Your task to perform on an android device: open app "Google Play services" (install if not already installed) Image 0: 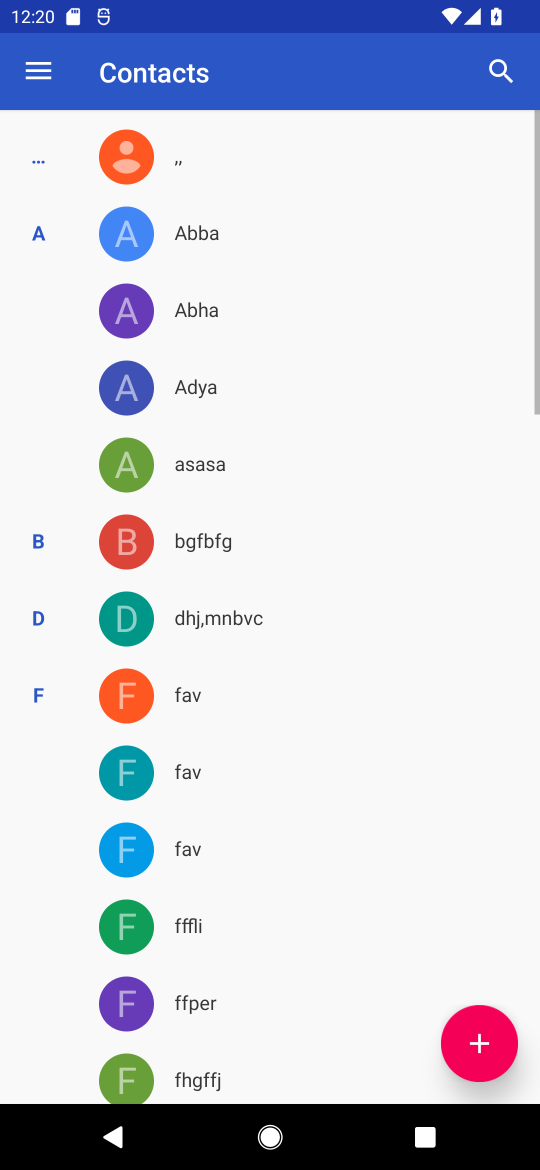
Step 0: press back button
Your task to perform on an android device: open app "Google Play services" (install if not already installed) Image 1: 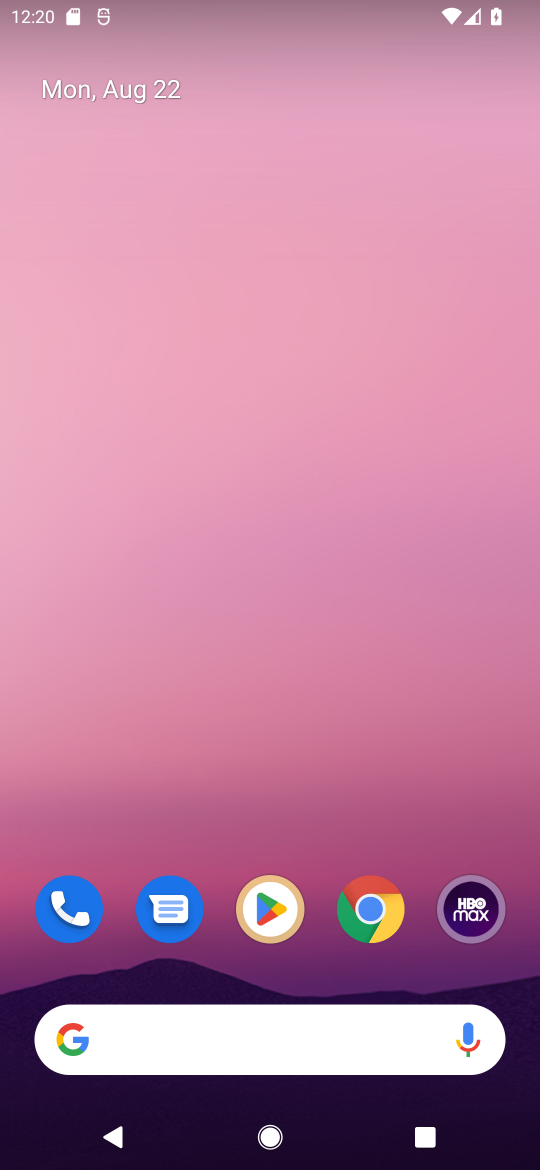
Step 1: click (266, 910)
Your task to perform on an android device: open app "Google Play services" (install if not already installed) Image 2: 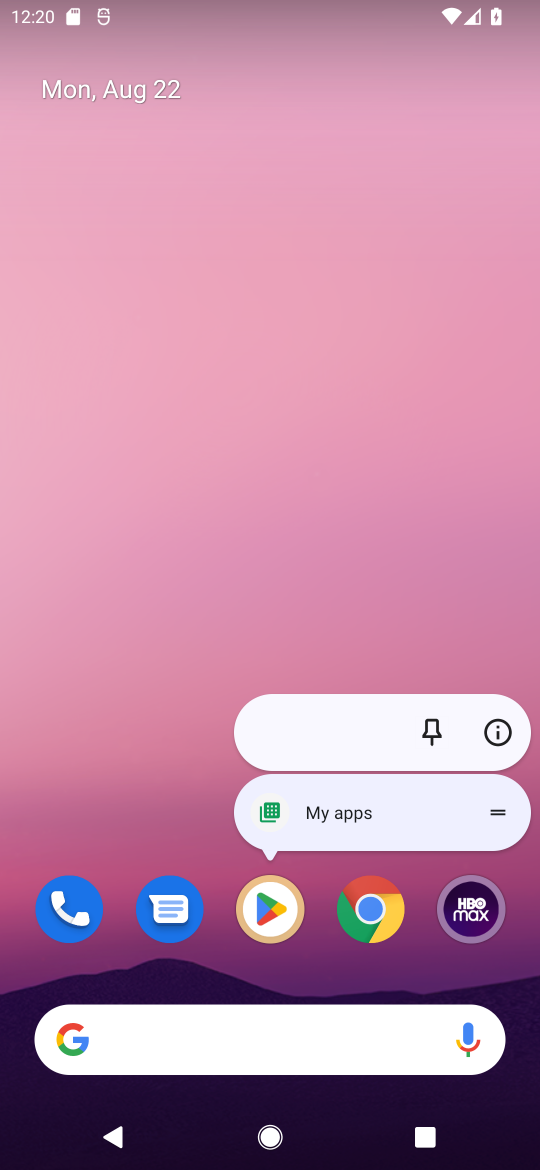
Step 2: click (274, 905)
Your task to perform on an android device: open app "Google Play services" (install if not already installed) Image 3: 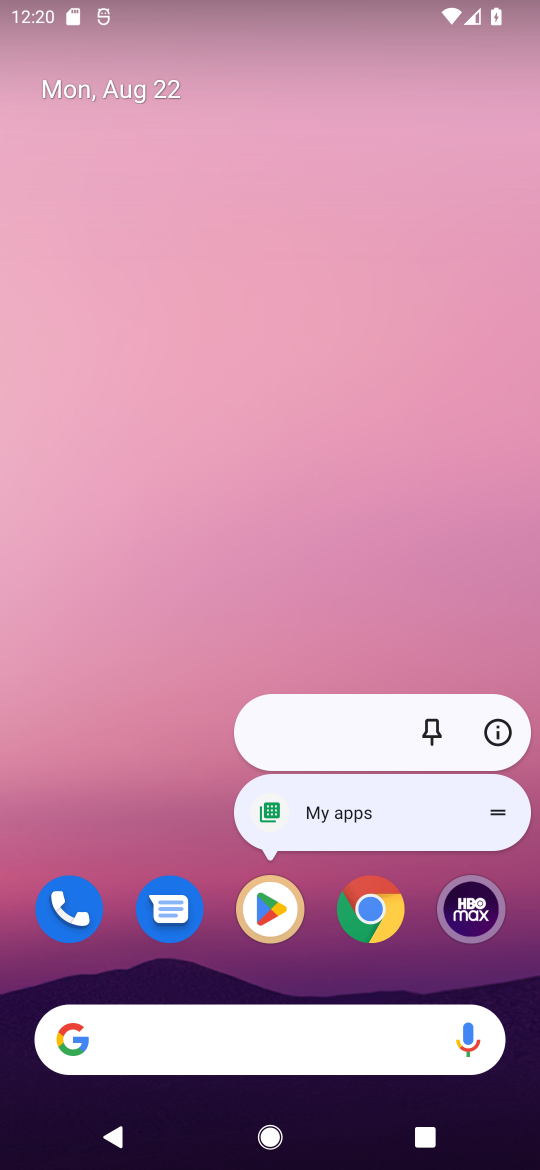
Step 3: click (278, 910)
Your task to perform on an android device: open app "Google Play services" (install if not already installed) Image 4: 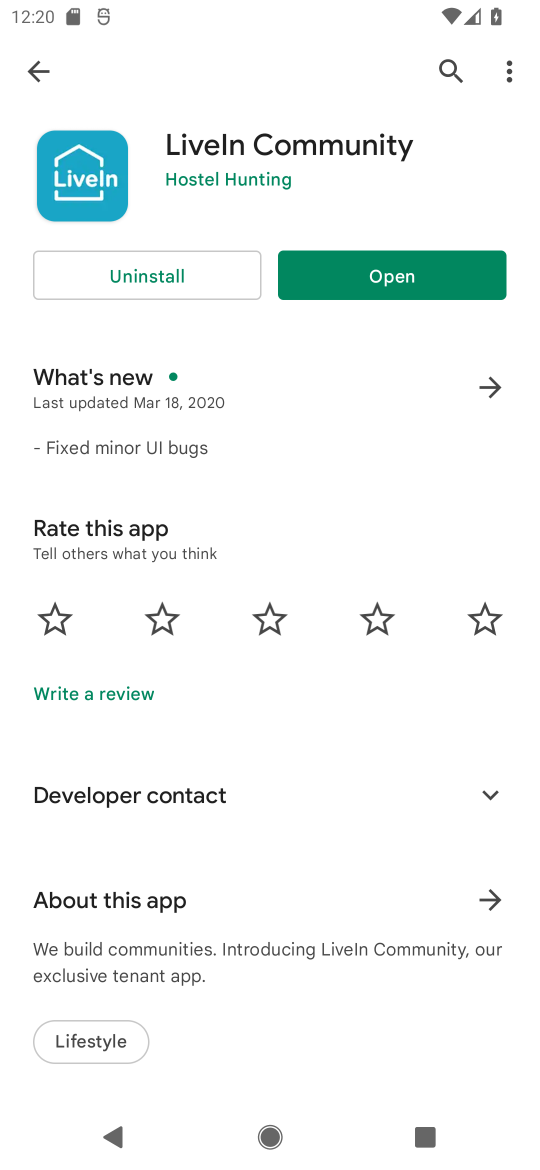
Step 4: click (453, 67)
Your task to perform on an android device: open app "Google Play services" (install if not already installed) Image 5: 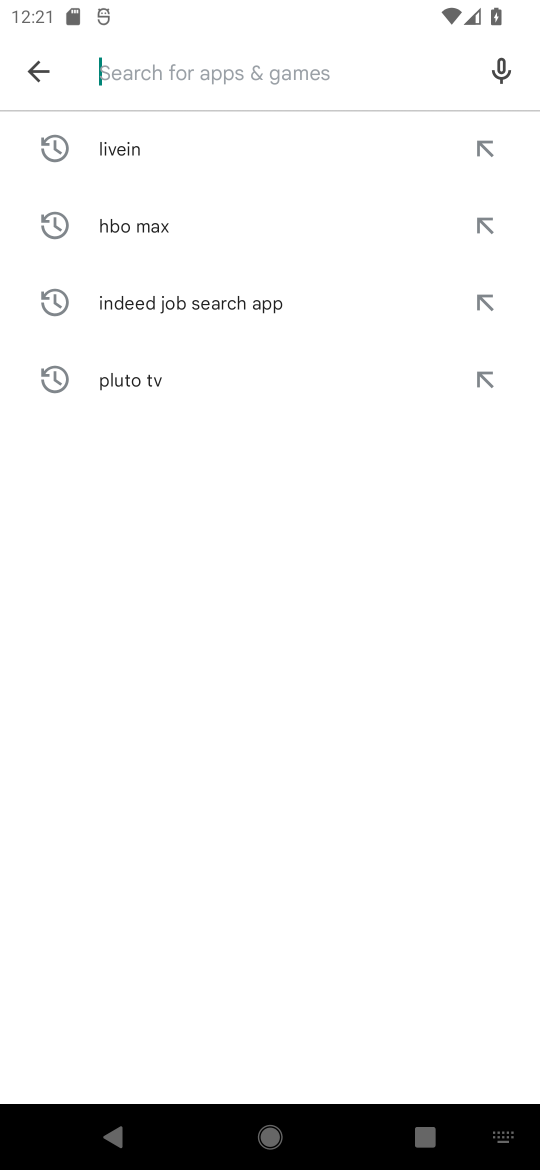
Step 5: click (239, 84)
Your task to perform on an android device: open app "Google Play services" (install if not already installed) Image 6: 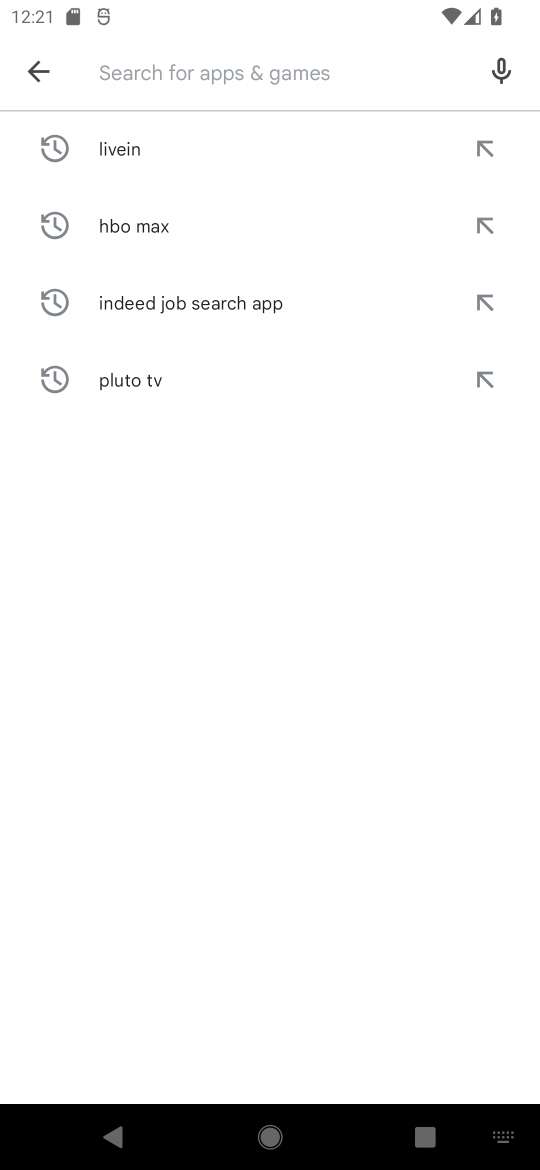
Step 6: type "Google Play services"
Your task to perform on an android device: open app "Google Play services" (install if not already installed) Image 7: 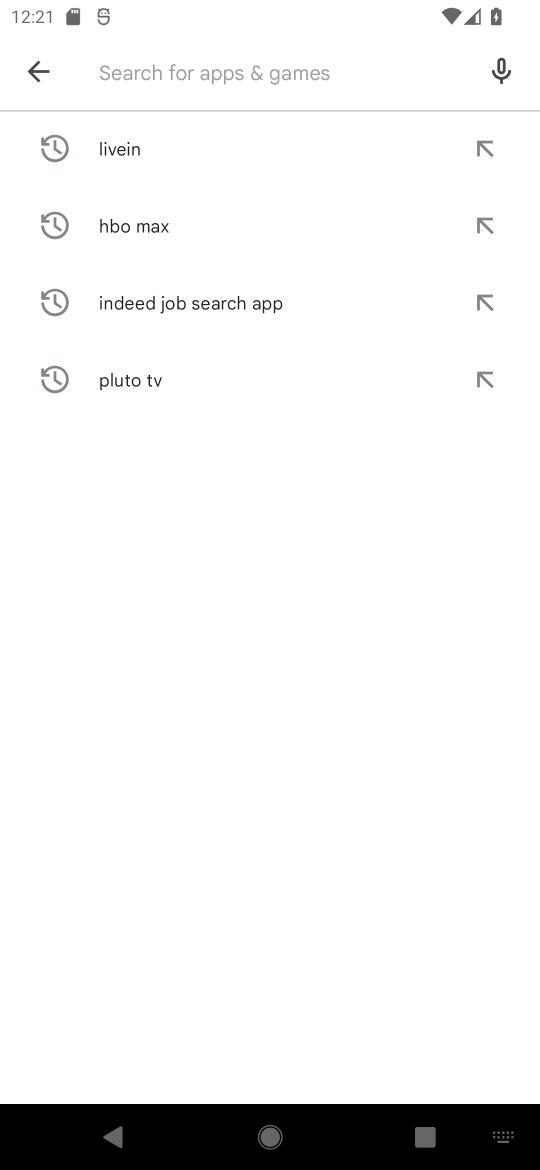
Step 7: click (373, 780)
Your task to perform on an android device: open app "Google Play services" (install if not already installed) Image 8: 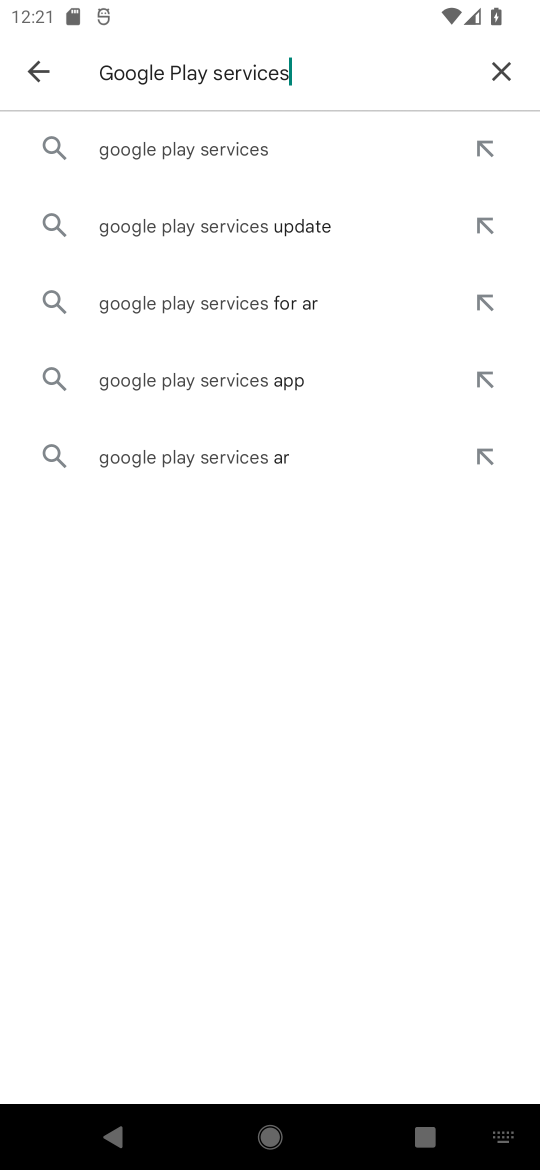
Step 8: click (231, 137)
Your task to perform on an android device: open app "Google Play services" (install if not already installed) Image 9: 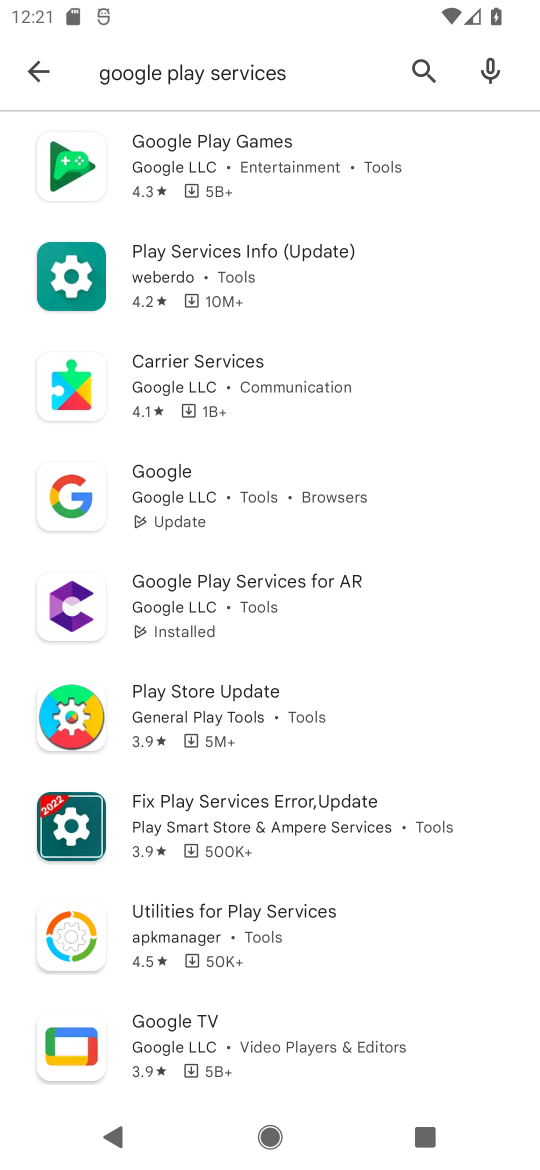
Step 9: click (224, 615)
Your task to perform on an android device: open app "Google Play services" (install if not already installed) Image 10: 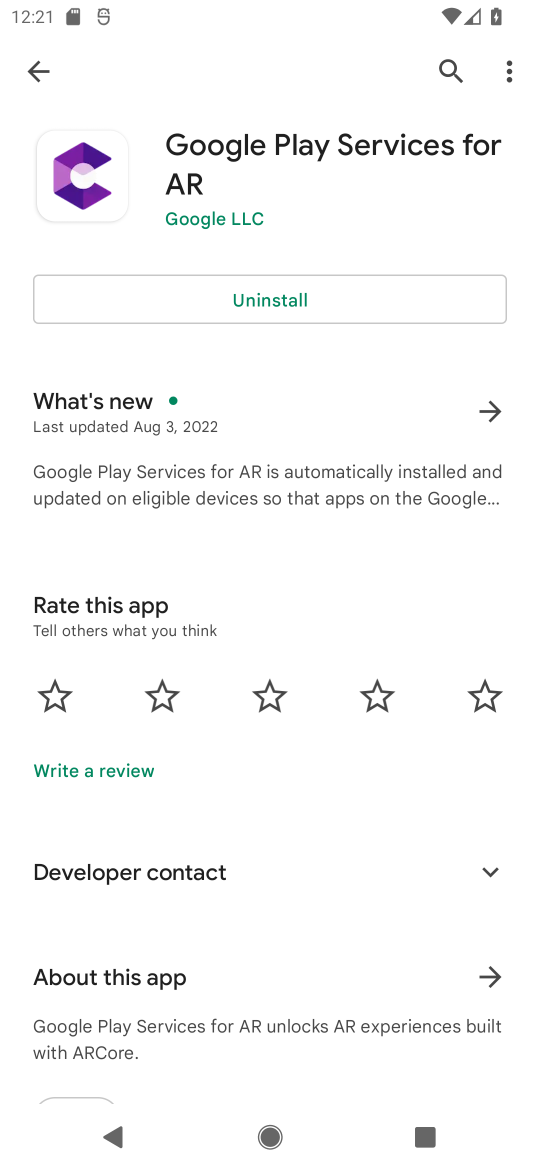
Step 10: task complete